Your task to perform on an android device: Go to accessibility settings Image 0: 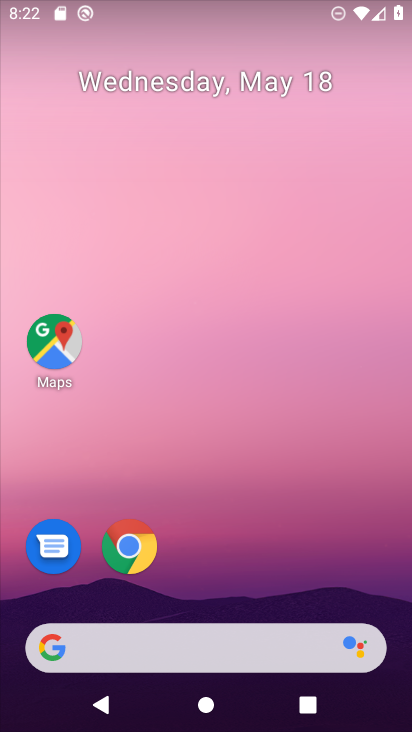
Step 0: drag from (252, 673) to (339, 308)
Your task to perform on an android device: Go to accessibility settings Image 1: 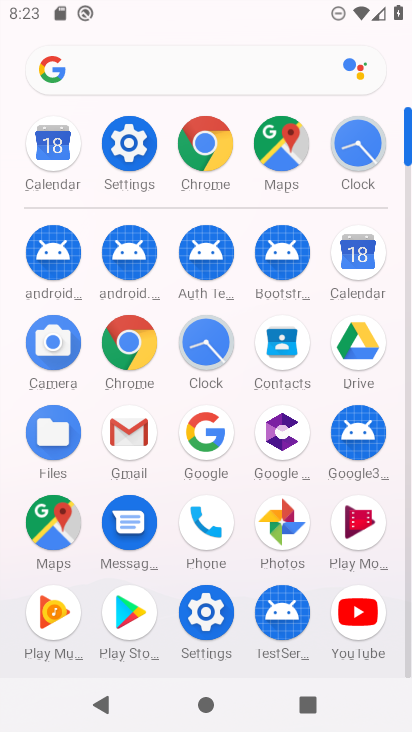
Step 1: click (116, 156)
Your task to perform on an android device: Go to accessibility settings Image 2: 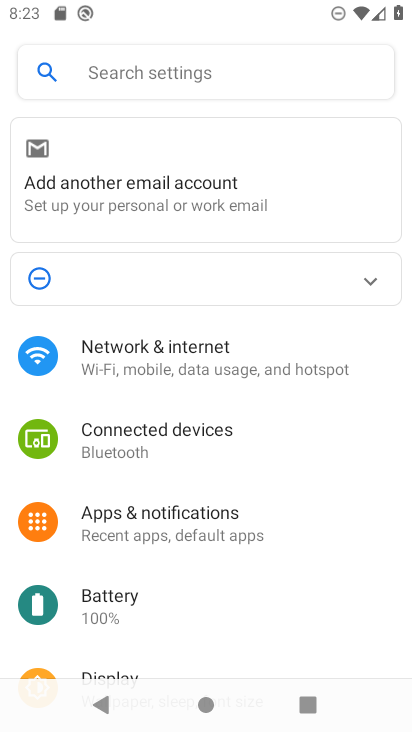
Step 2: click (133, 82)
Your task to perform on an android device: Go to accessibility settings Image 3: 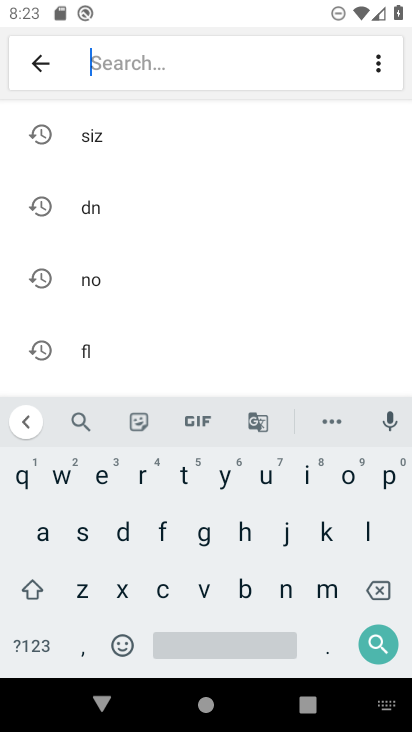
Step 3: click (40, 533)
Your task to perform on an android device: Go to accessibility settings Image 4: 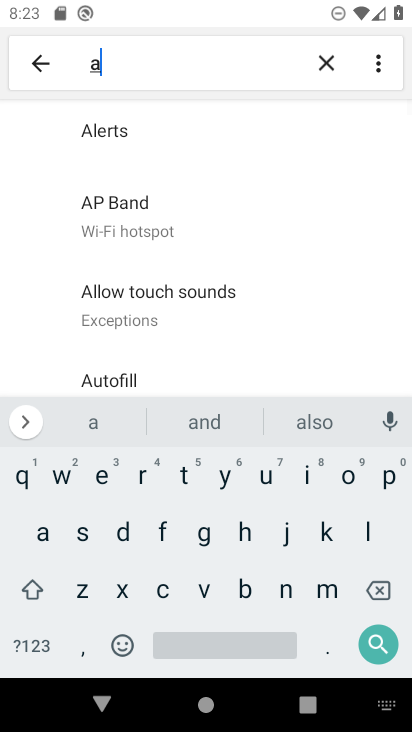
Step 4: click (162, 587)
Your task to perform on an android device: Go to accessibility settings Image 5: 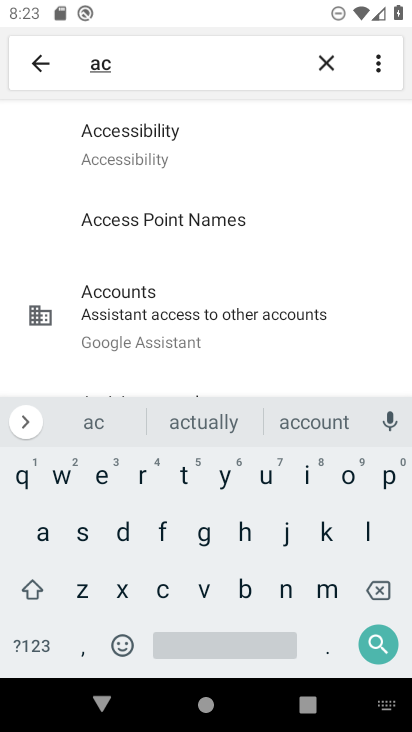
Step 5: click (176, 160)
Your task to perform on an android device: Go to accessibility settings Image 6: 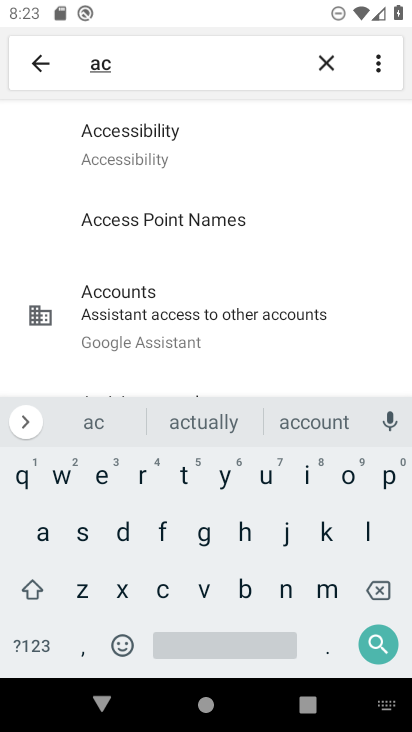
Step 6: click (170, 150)
Your task to perform on an android device: Go to accessibility settings Image 7: 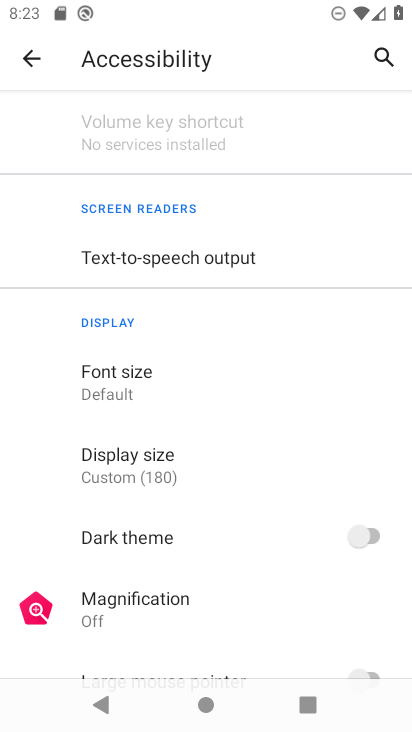
Step 7: task complete